Your task to perform on an android device: When is my next meeting? Image 0: 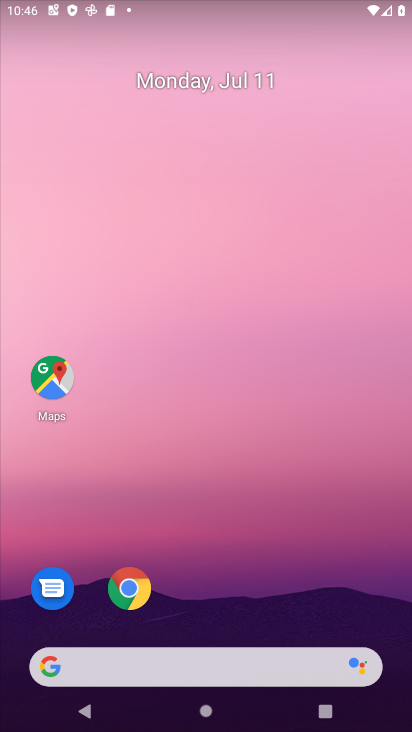
Step 0: drag from (133, 714) to (311, 43)
Your task to perform on an android device: When is my next meeting? Image 1: 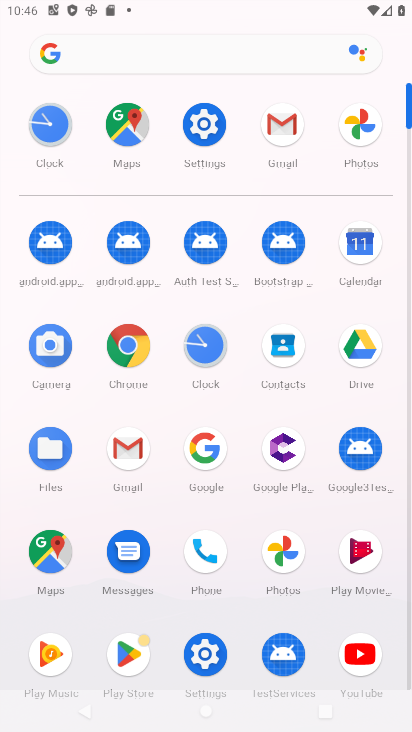
Step 1: click (353, 258)
Your task to perform on an android device: When is my next meeting? Image 2: 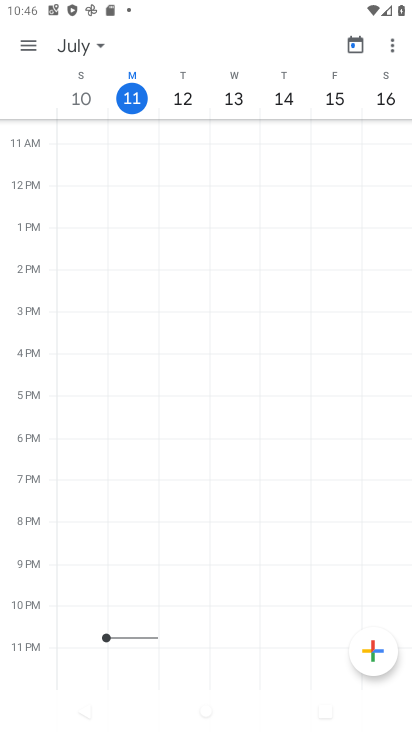
Step 2: click (354, 44)
Your task to perform on an android device: When is my next meeting? Image 3: 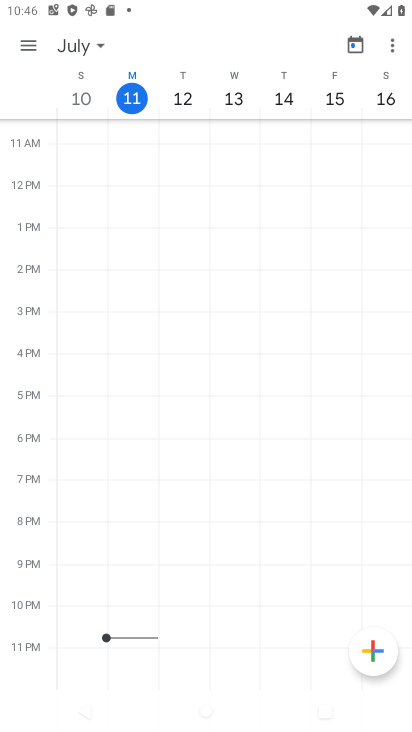
Step 3: click (357, 34)
Your task to perform on an android device: When is my next meeting? Image 4: 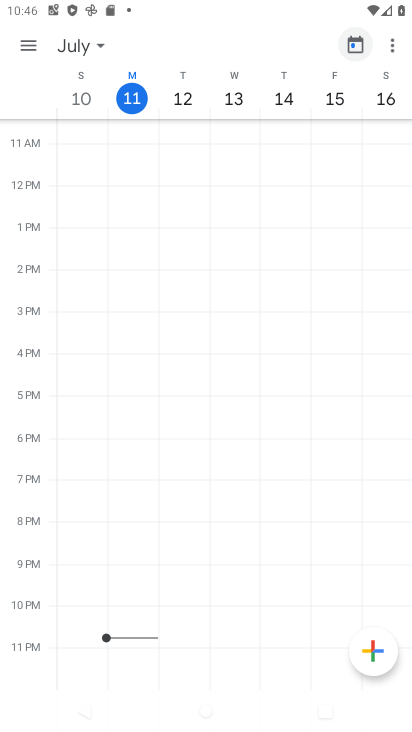
Step 4: click (353, 32)
Your task to perform on an android device: When is my next meeting? Image 5: 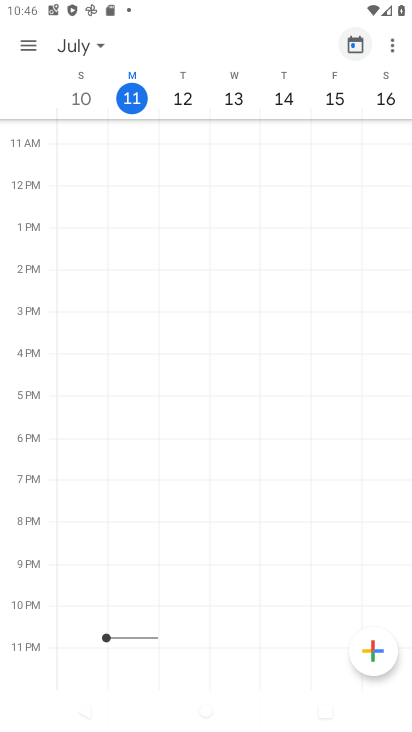
Step 5: click (356, 40)
Your task to perform on an android device: When is my next meeting? Image 6: 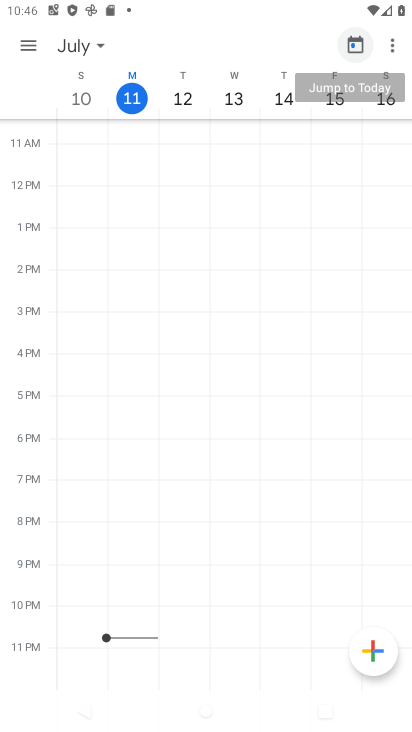
Step 6: click (356, 40)
Your task to perform on an android device: When is my next meeting? Image 7: 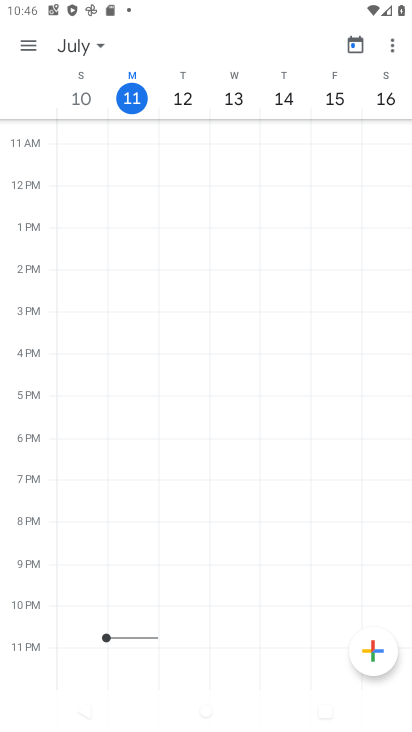
Step 7: task complete